Your task to perform on an android device: Open the Play Movies app and select the watchlist tab. Image 0: 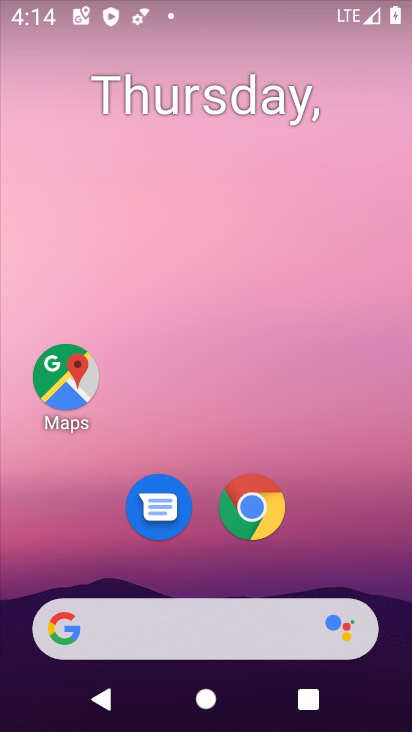
Step 0: press home button
Your task to perform on an android device: Open the Play Movies app and select the watchlist tab. Image 1: 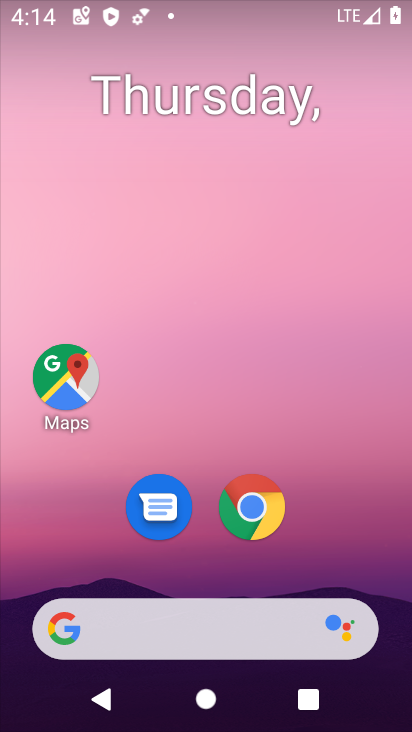
Step 1: drag from (58, 548) to (358, 102)
Your task to perform on an android device: Open the Play Movies app and select the watchlist tab. Image 2: 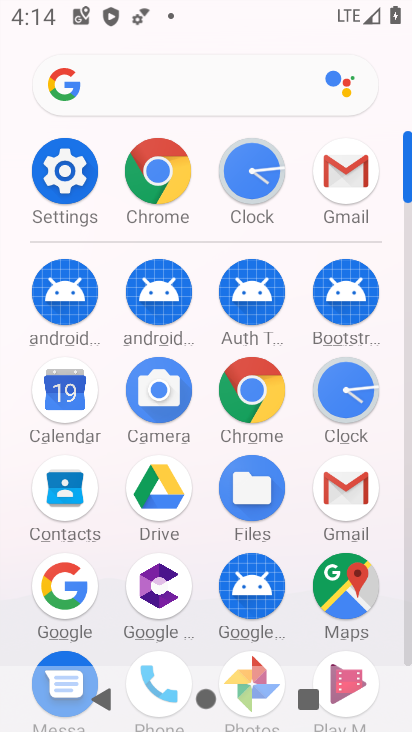
Step 2: click (406, 398)
Your task to perform on an android device: Open the Play Movies app and select the watchlist tab. Image 3: 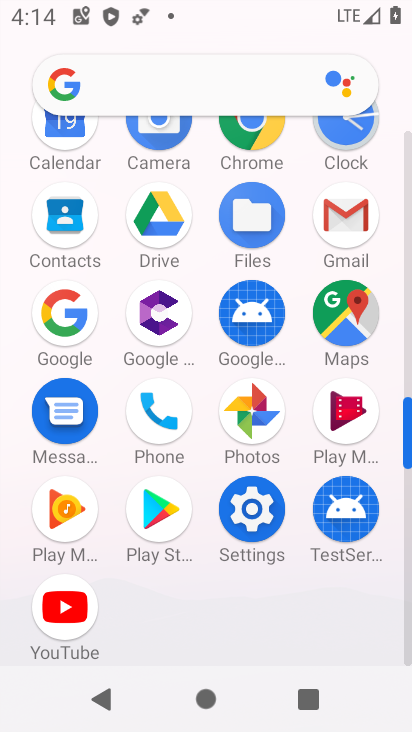
Step 3: click (337, 407)
Your task to perform on an android device: Open the Play Movies app and select the watchlist tab. Image 4: 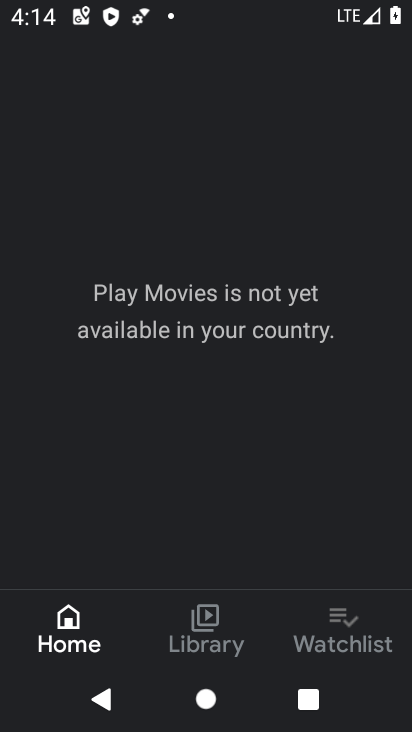
Step 4: click (353, 639)
Your task to perform on an android device: Open the Play Movies app and select the watchlist tab. Image 5: 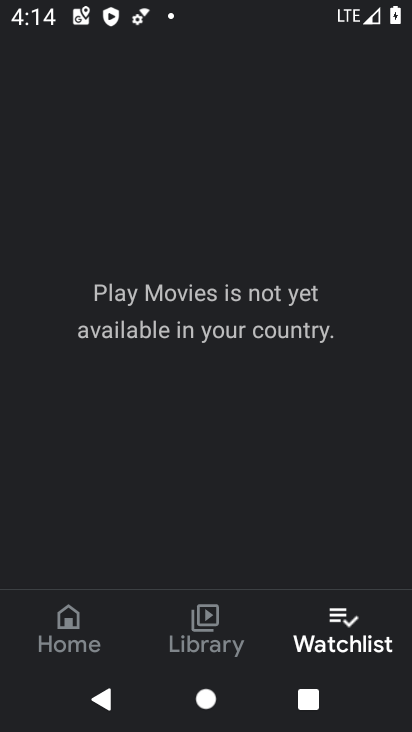
Step 5: task complete